Your task to perform on an android device: change the clock display to digital Image 0: 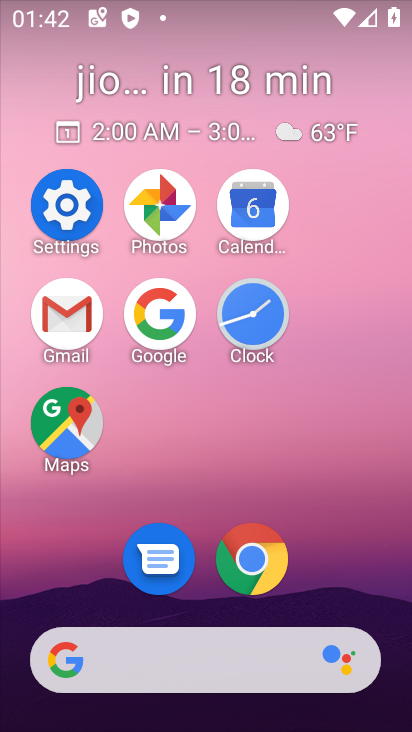
Step 0: click (250, 317)
Your task to perform on an android device: change the clock display to digital Image 1: 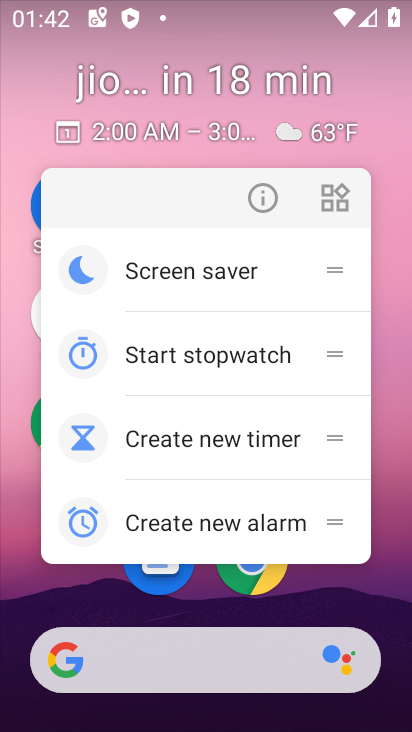
Step 1: click (387, 133)
Your task to perform on an android device: change the clock display to digital Image 2: 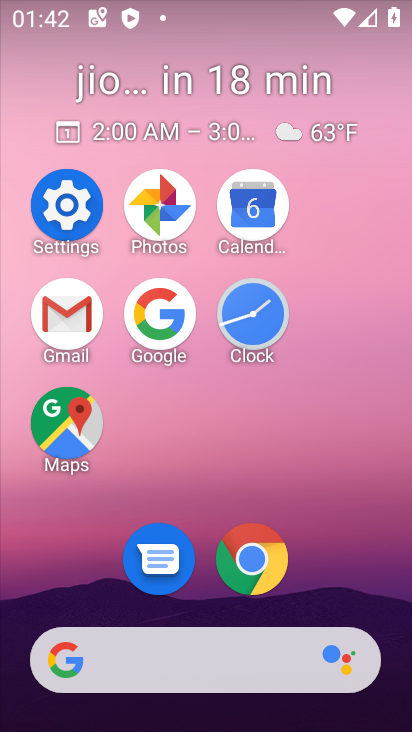
Step 2: click (260, 329)
Your task to perform on an android device: change the clock display to digital Image 3: 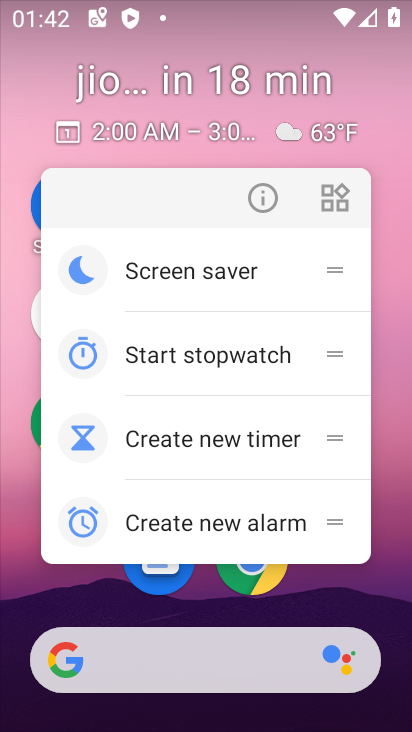
Step 3: click (407, 142)
Your task to perform on an android device: change the clock display to digital Image 4: 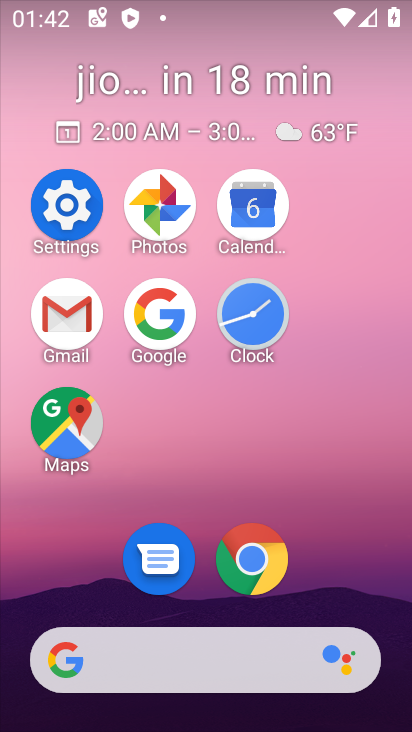
Step 4: click (260, 302)
Your task to perform on an android device: change the clock display to digital Image 5: 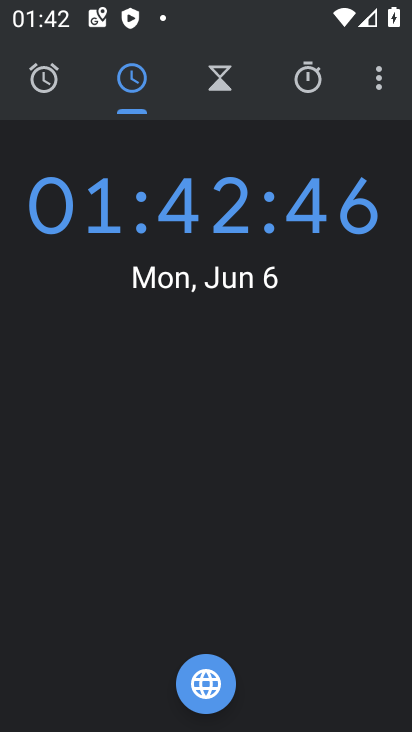
Step 5: click (355, 93)
Your task to perform on an android device: change the clock display to digital Image 6: 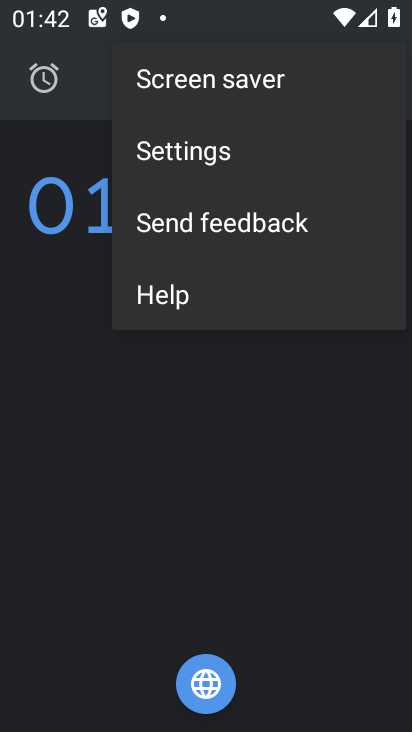
Step 6: click (203, 166)
Your task to perform on an android device: change the clock display to digital Image 7: 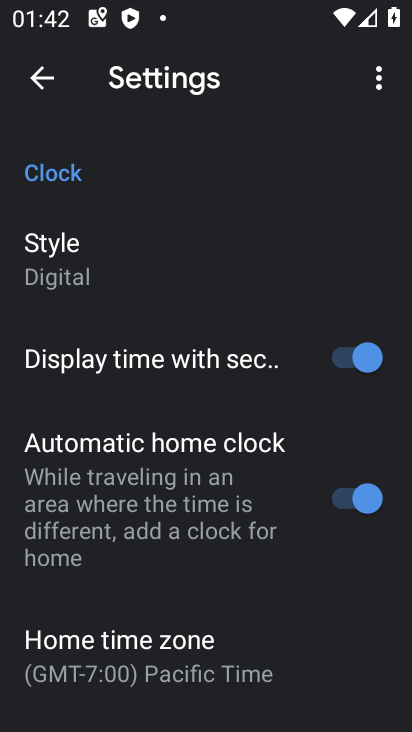
Step 7: task complete